Your task to perform on an android device: See recent photos Image 0: 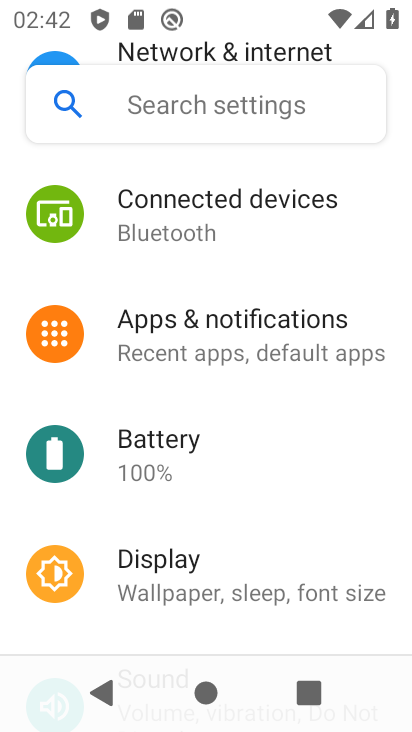
Step 0: press home button
Your task to perform on an android device: See recent photos Image 1: 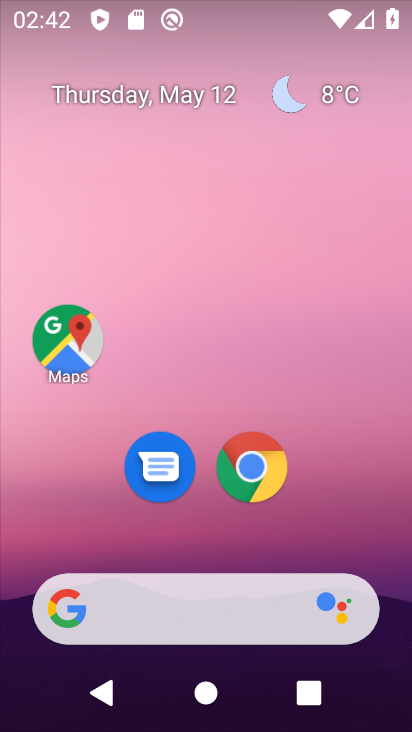
Step 1: drag from (325, 519) to (325, 3)
Your task to perform on an android device: See recent photos Image 2: 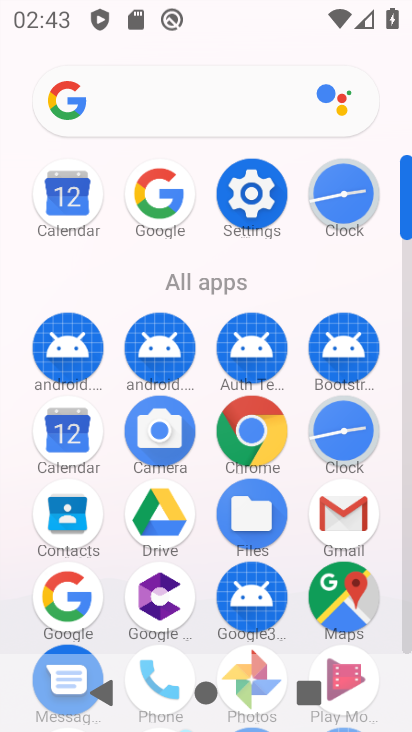
Step 2: drag from (286, 279) to (287, 74)
Your task to perform on an android device: See recent photos Image 3: 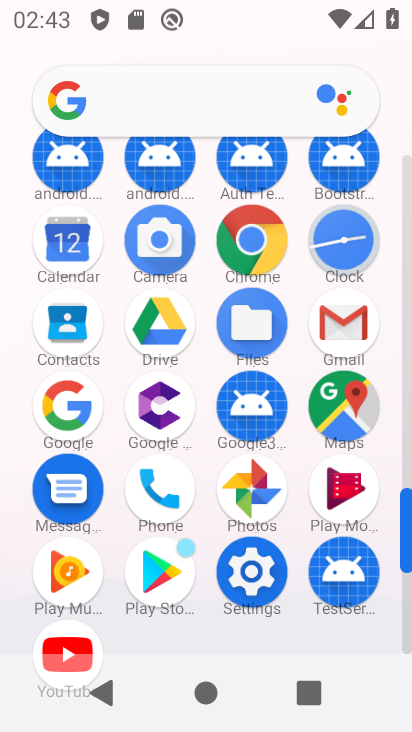
Step 3: click (247, 495)
Your task to perform on an android device: See recent photos Image 4: 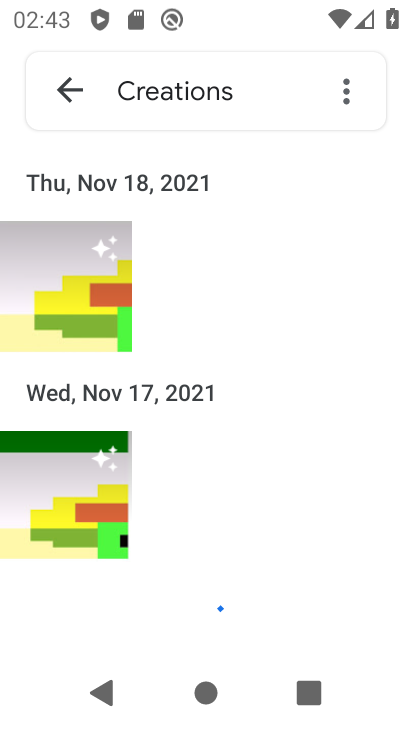
Step 4: task complete